Your task to perform on an android device: open app "Microsoft Excel" (install if not already installed) Image 0: 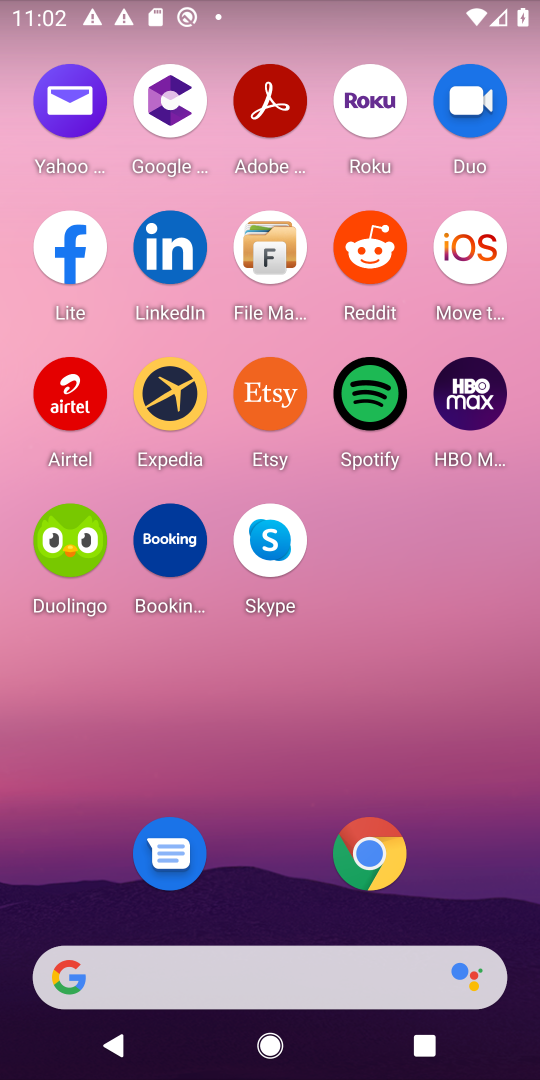
Step 0: drag from (306, 738) to (324, 228)
Your task to perform on an android device: open app "Microsoft Excel" (install if not already installed) Image 1: 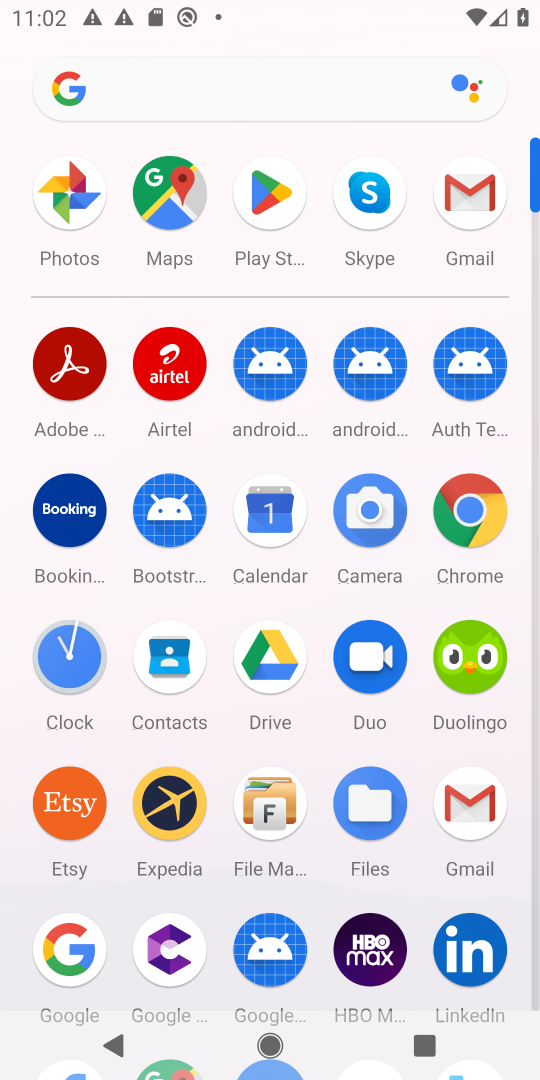
Step 1: click (252, 198)
Your task to perform on an android device: open app "Microsoft Excel" (install if not already installed) Image 2: 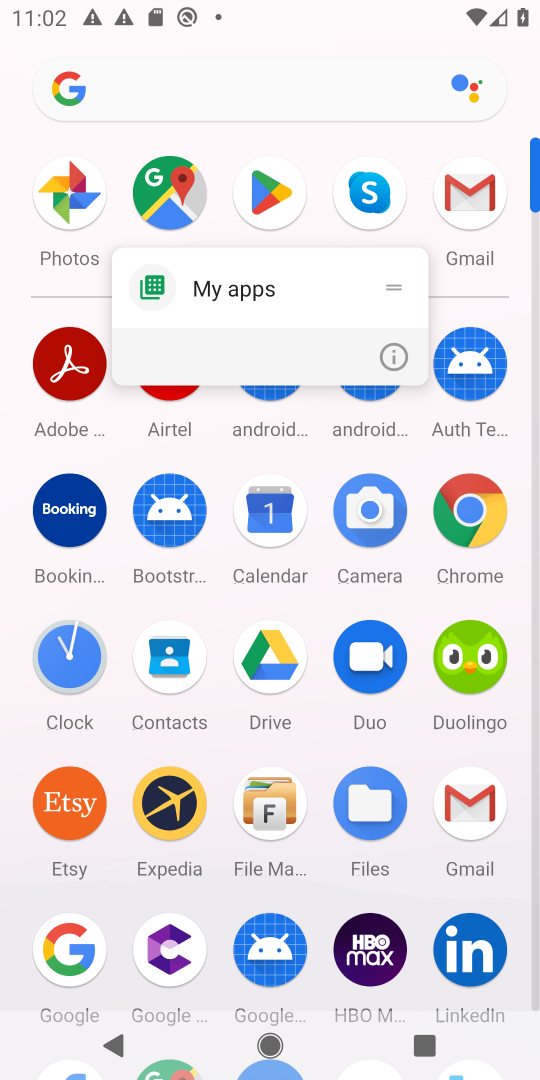
Step 2: click (382, 357)
Your task to perform on an android device: open app "Microsoft Excel" (install if not already installed) Image 3: 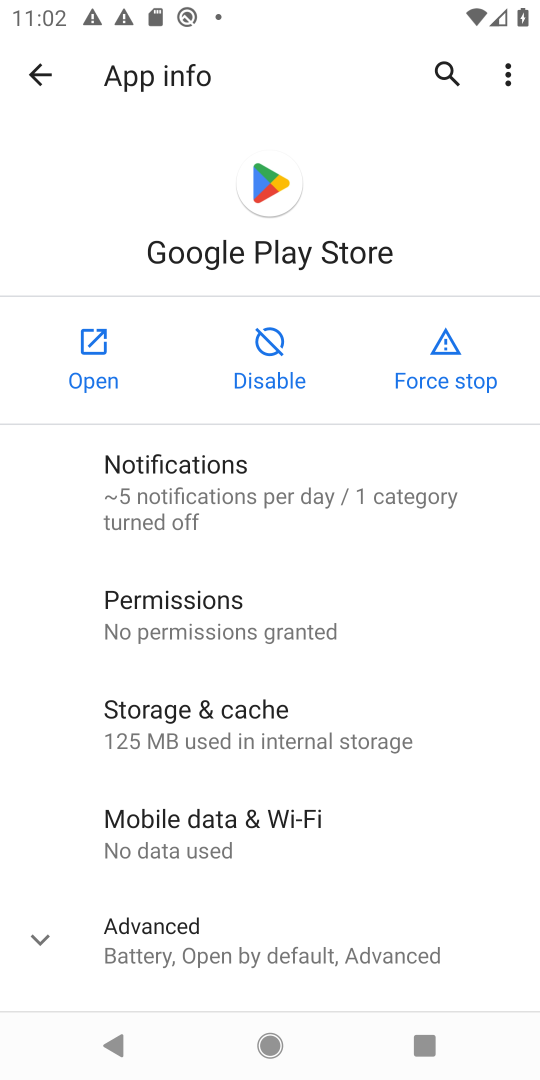
Step 3: click (95, 338)
Your task to perform on an android device: open app "Microsoft Excel" (install if not already installed) Image 4: 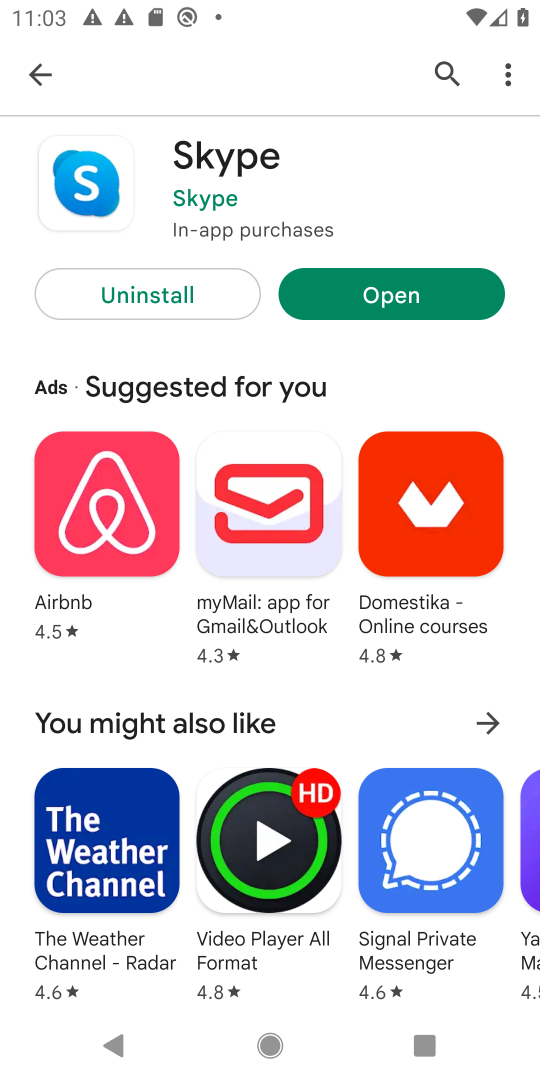
Step 4: click (444, 62)
Your task to perform on an android device: open app "Microsoft Excel" (install if not already installed) Image 5: 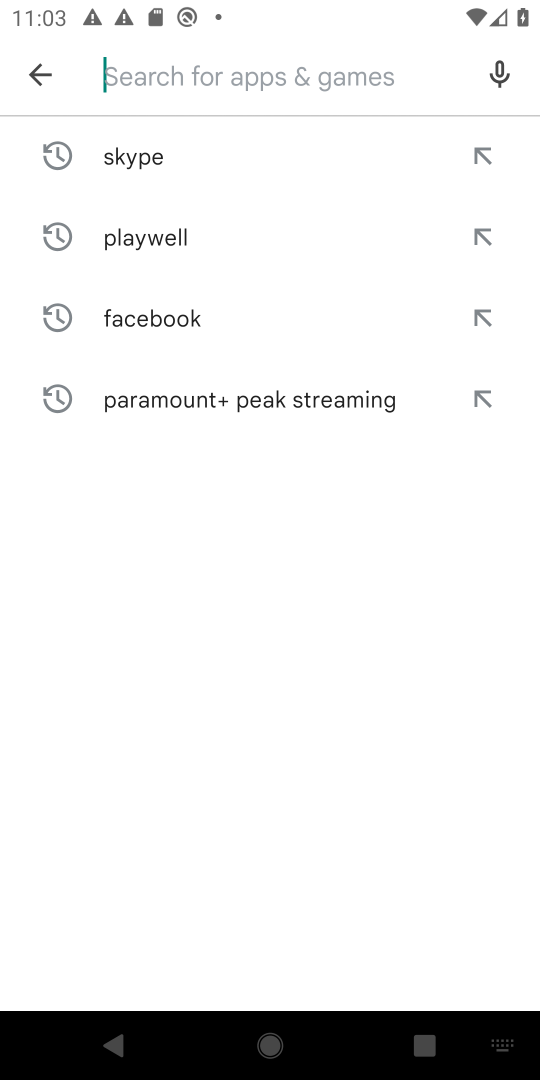
Step 5: type "Microsoft Excel"
Your task to perform on an android device: open app "Microsoft Excel" (install if not already installed) Image 6: 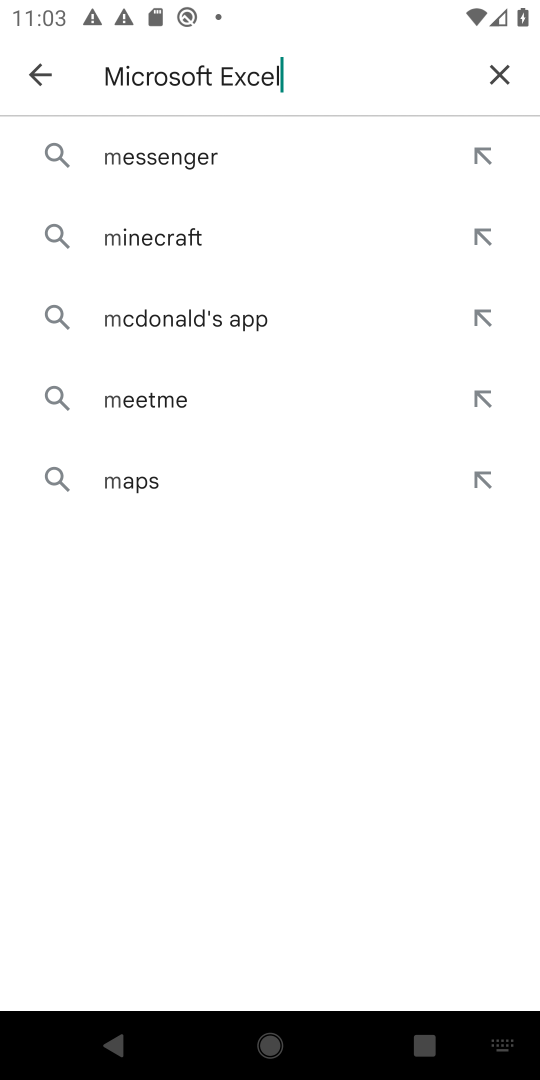
Step 6: type ""
Your task to perform on an android device: open app "Microsoft Excel" (install if not already installed) Image 7: 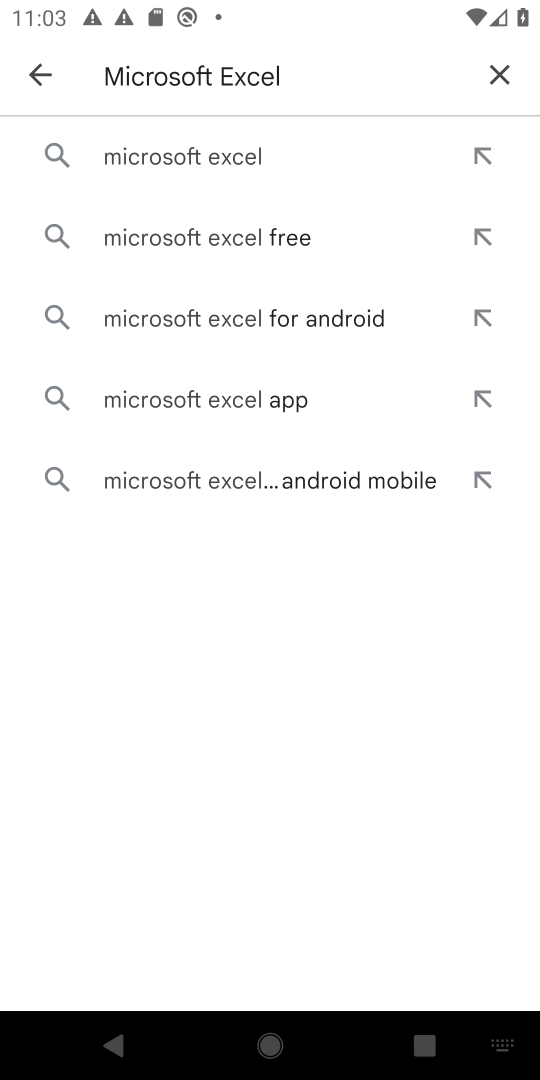
Step 7: click (122, 162)
Your task to perform on an android device: open app "Microsoft Excel" (install if not already installed) Image 8: 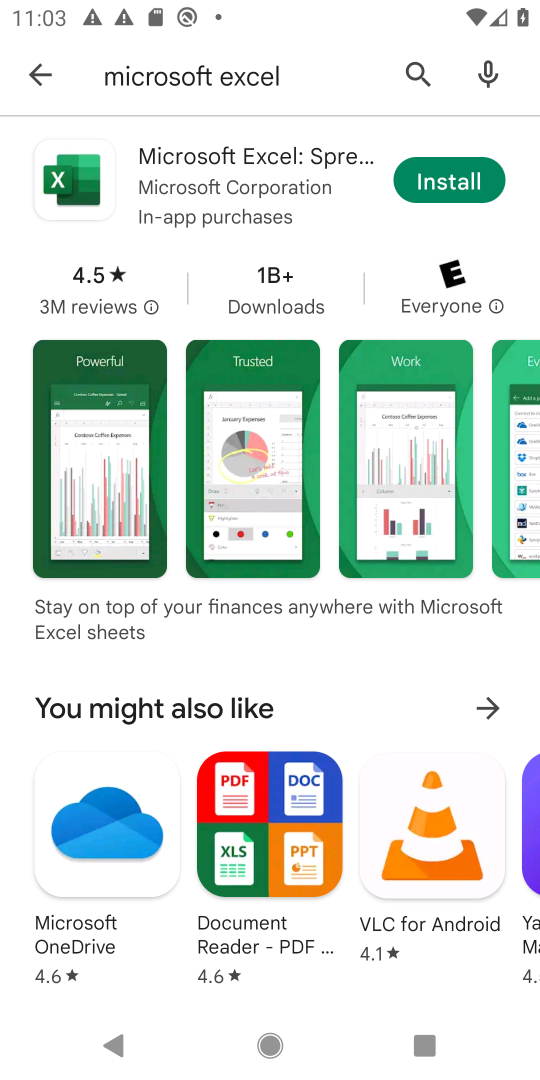
Step 8: click (166, 162)
Your task to perform on an android device: open app "Microsoft Excel" (install if not already installed) Image 9: 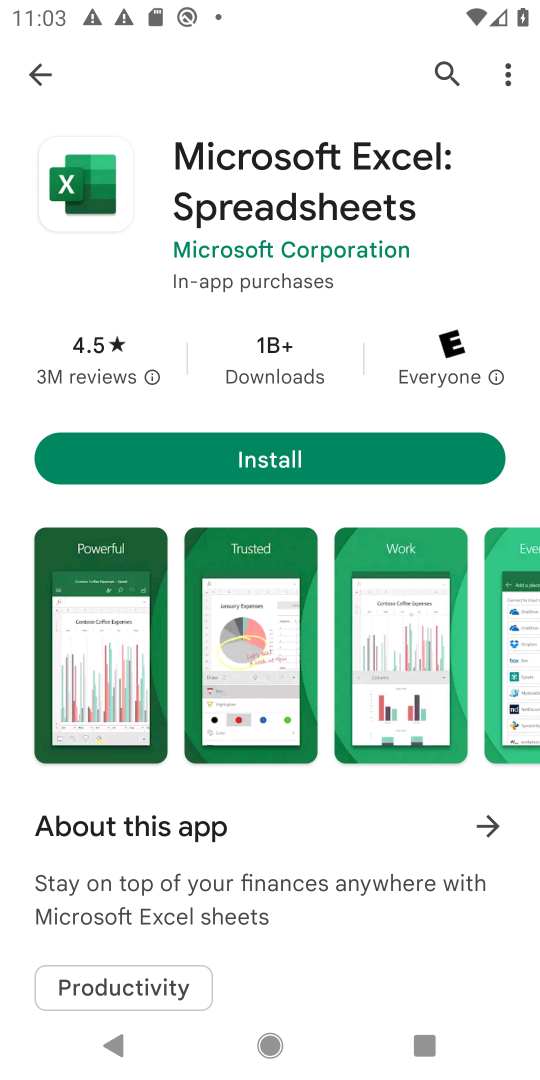
Step 9: task complete